Your task to perform on an android device: Go to location settings Image 0: 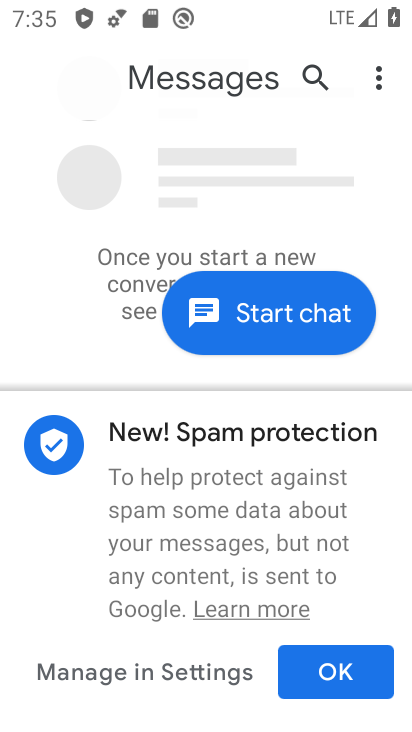
Step 0: press home button
Your task to perform on an android device: Go to location settings Image 1: 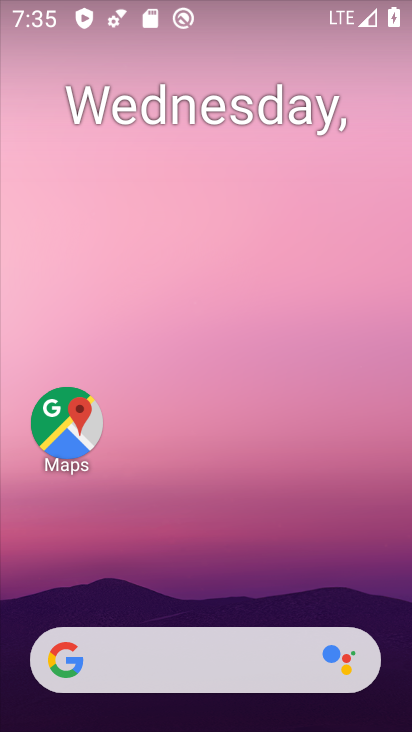
Step 1: drag from (204, 616) to (169, 56)
Your task to perform on an android device: Go to location settings Image 2: 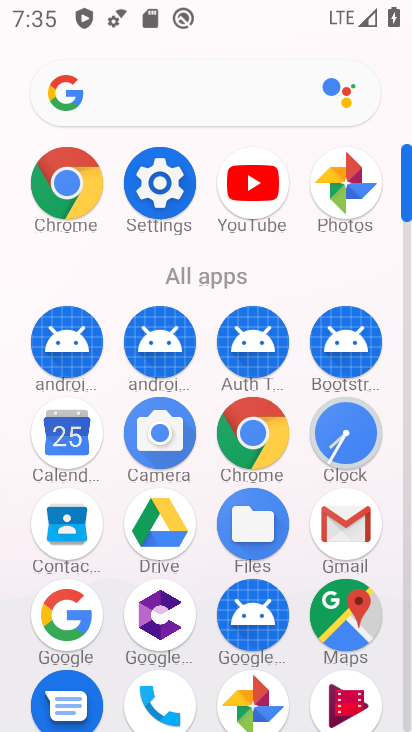
Step 2: click (163, 189)
Your task to perform on an android device: Go to location settings Image 3: 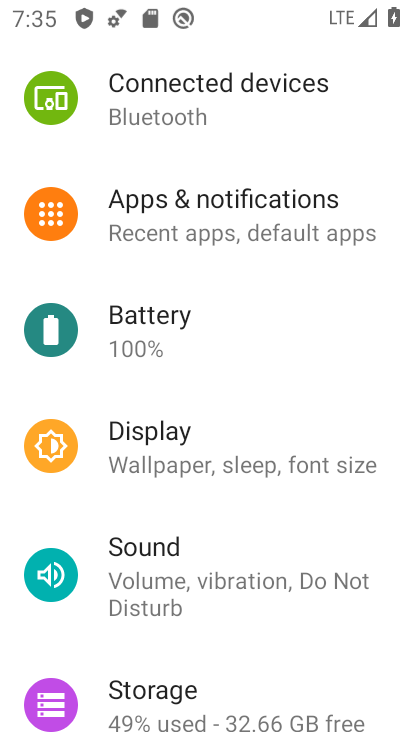
Step 3: drag from (215, 548) to (190, 235)
Your task to perform on an android device: Go to location settings Image 4: 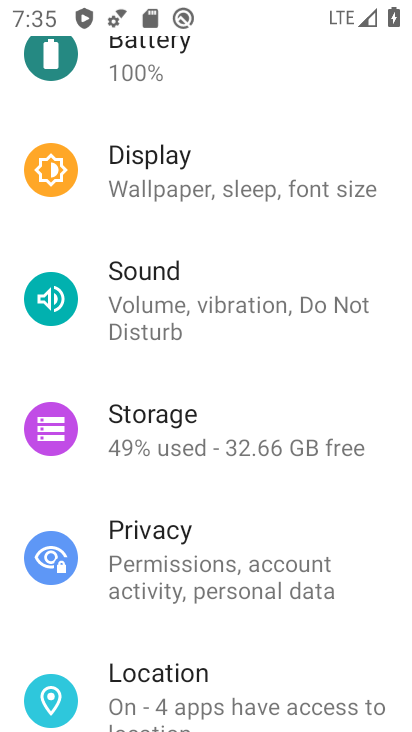
Step 4: click (223, 708)
Your task to perform on an android device: Go to location settings Image 5: 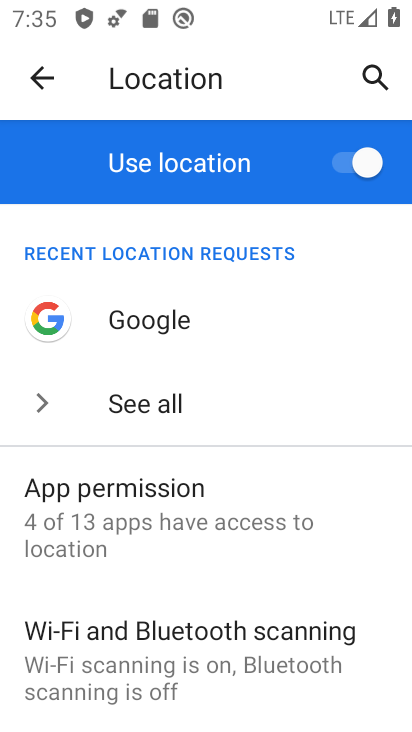
Step 5: task complete